Your task to perform on an android device: Search for Mexican restaurants on Maps Image 0: 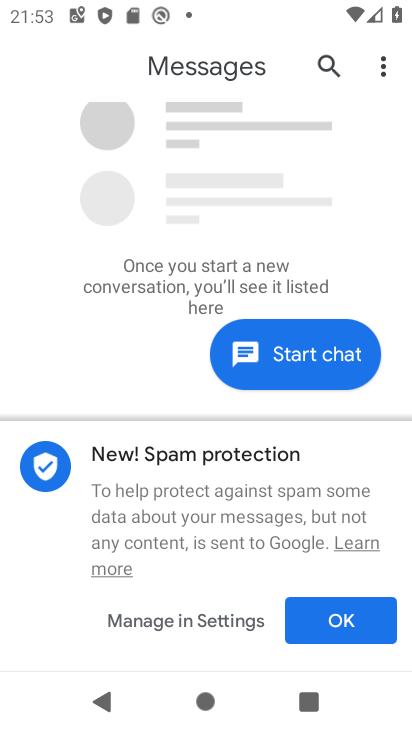
Step 0: press home button
Your task to perform on an android device: Search for Mexican restaurants on Maps Image 1: 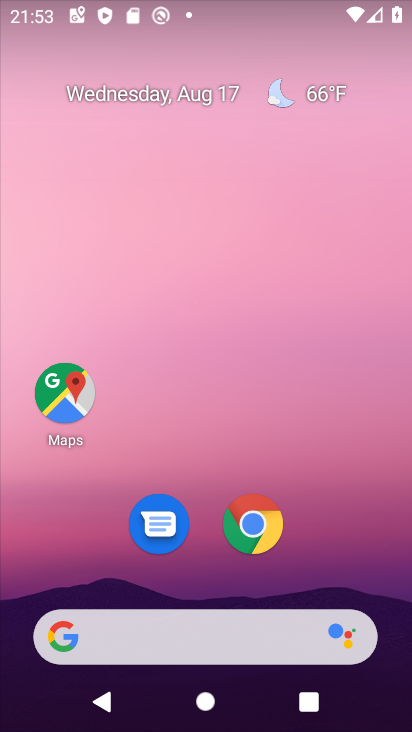
Step 1: click (66, 393)
Your task to perform on an android device: Search for Mexican restaurants on Maps Image 2: 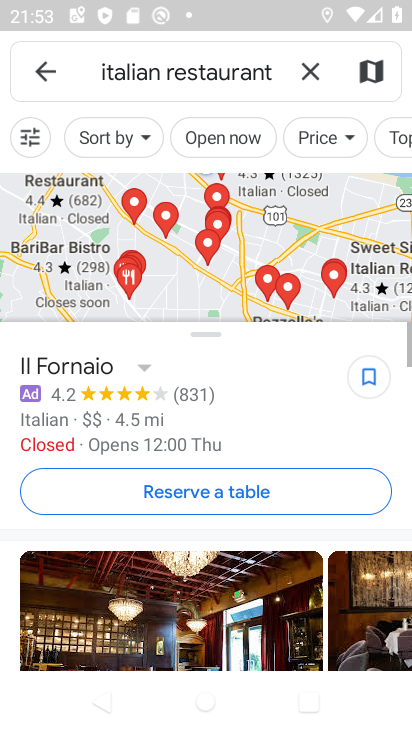
Step 2: click (54, 69)
Your task to perform on an android device: Search for Mexican restaurants on Maps Image 3: 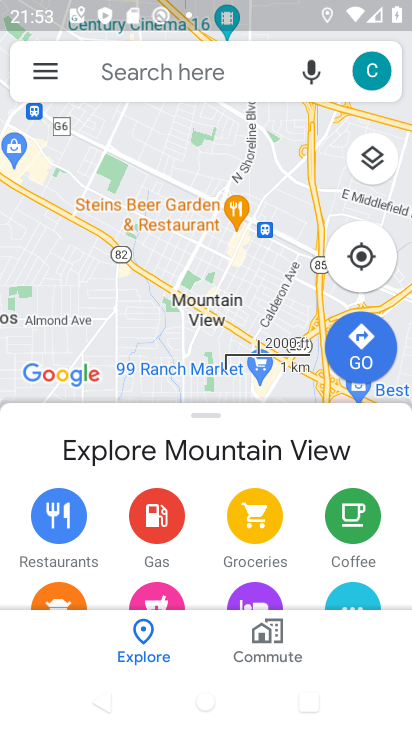
Step 3: click (96, 70)
Your task to perform on an android device: Search for Mexican restaurants on Maps Image 4: 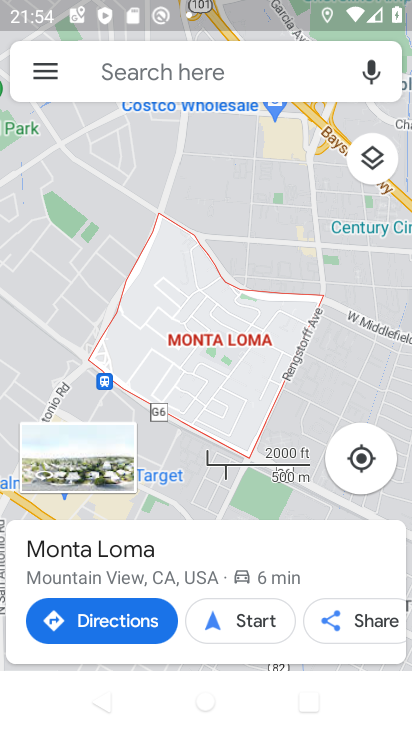
Step 4: click (126, 70)
Your task to perform on an android device: Search for Mexican restaurants on Maps Image 5: 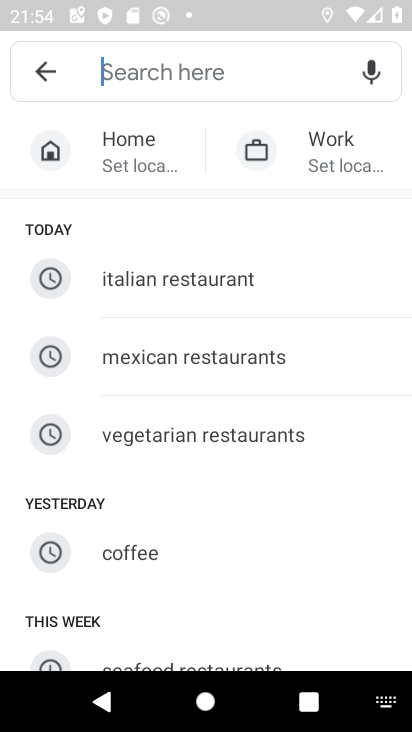
Step 5: click (199, 348)
Your task to perform on an android device: Search for Mexican restaurants on Maps Image 6: 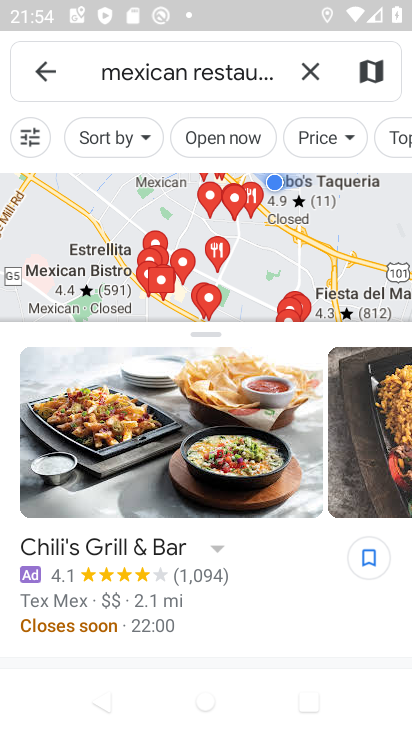
Step 6: task complete